Your task to perform on an android device: Check the weather Image 0: 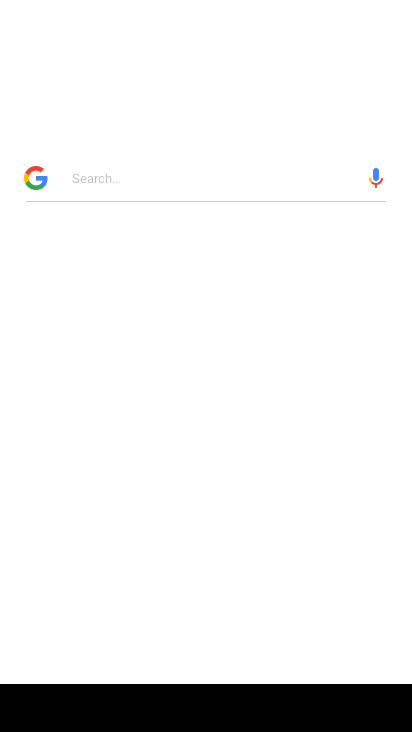
Step 0: press home button
Your task to perform on an android device: Check the weather Image 1: 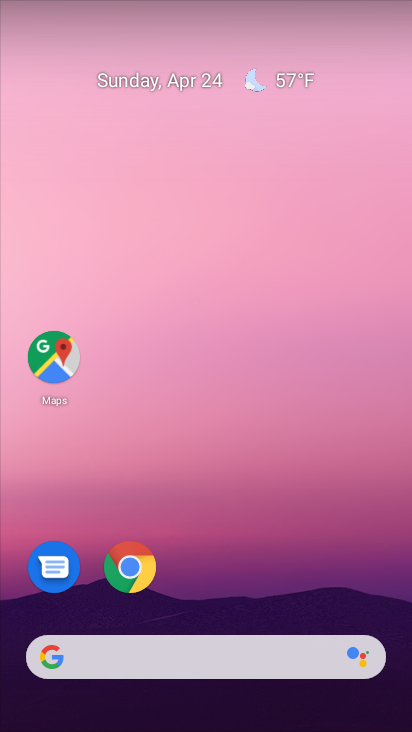
Step 1: click (270, 79)
Your task to perform on an android device: Check the weather Image 2: 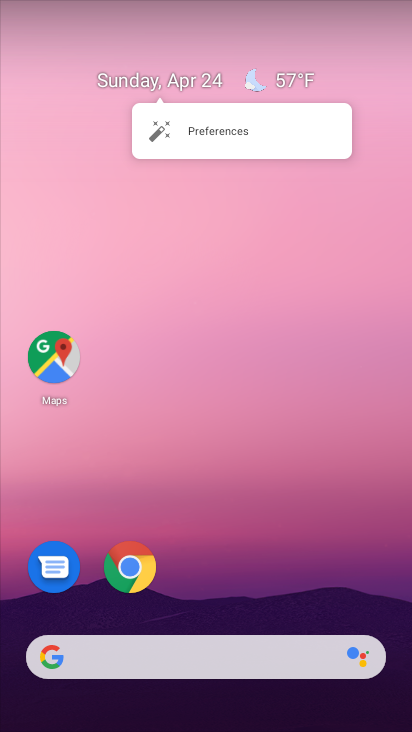
Step 2: click (288, 73)
Your task to perform on an android device: Check the weather Image 3: 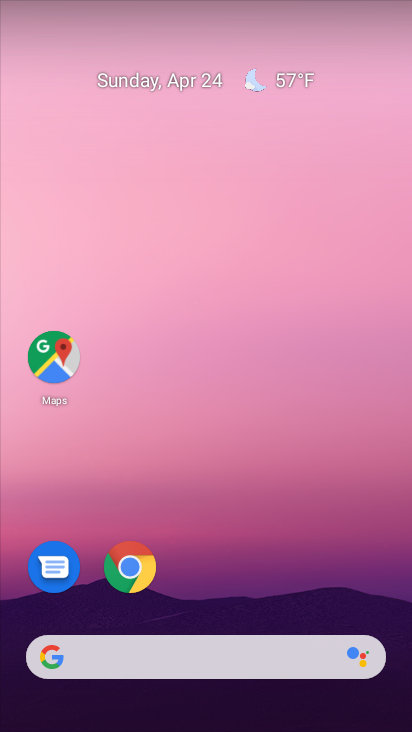
Step 3: click (291, 71)
Your task to perform on an android device: Check the weather Image 4: 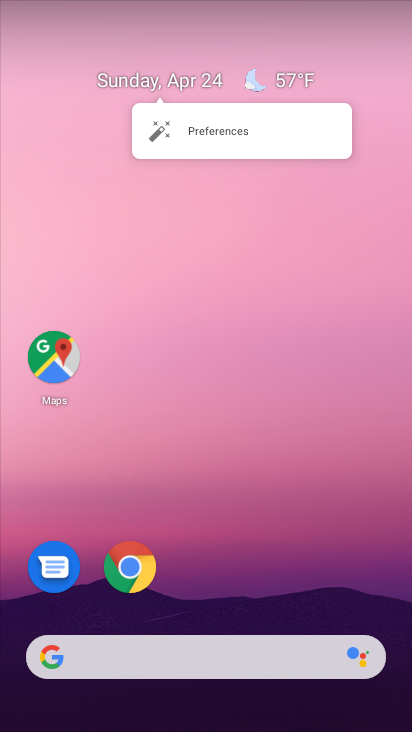
Step 4: click (295, 80)
Your task to perform on an android device: Check the weather Image 5: 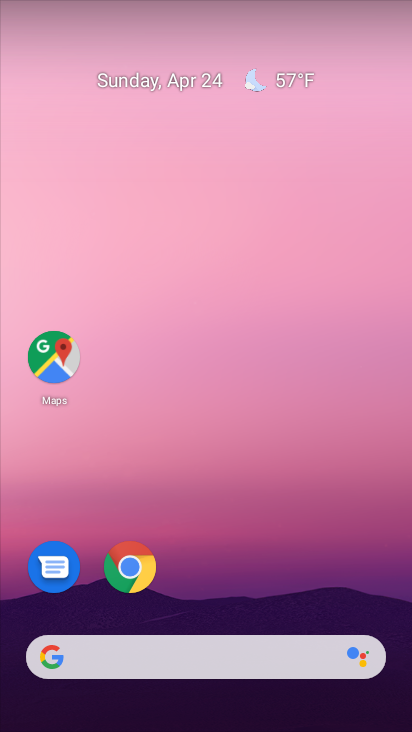
Step 5: click (285, 77)
Your task to perform on an android device: Check the weather Image 6: 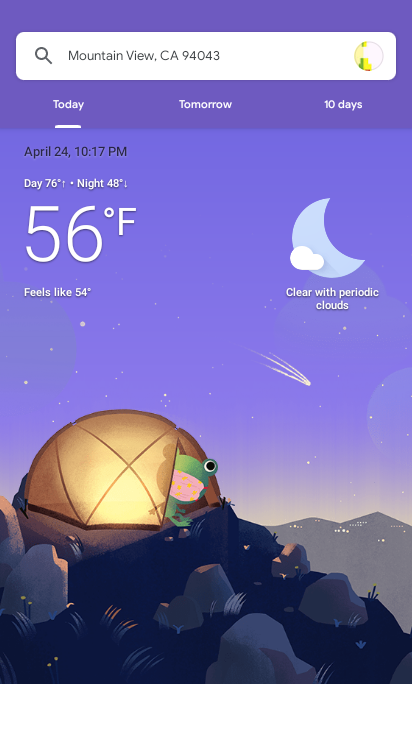
Step 6: task complete